Your task to perform on an android device: turn on the 24-hour format for clock Image 0: 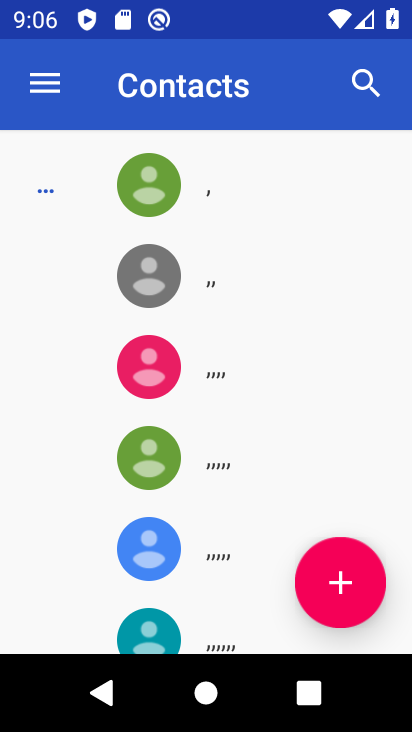
Step 0: press home button
Your task to perform on an android device: turn on the 24-hour format for clock Image 1: 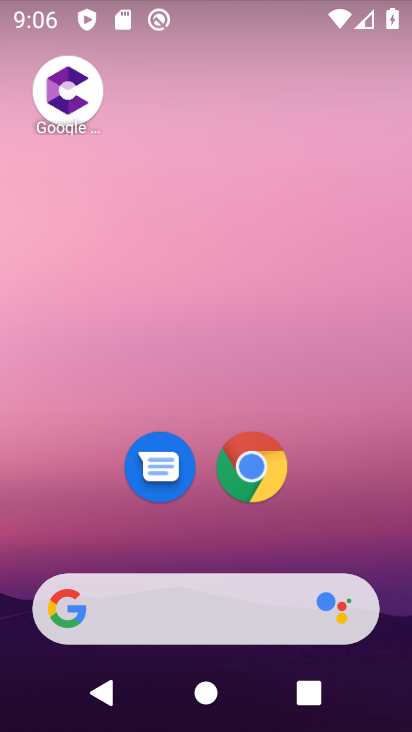
Step 1: drag from (369, 513) to (326, 14)
Your task to perform on an android device: turn on the 24-hour format for clock Image 2: 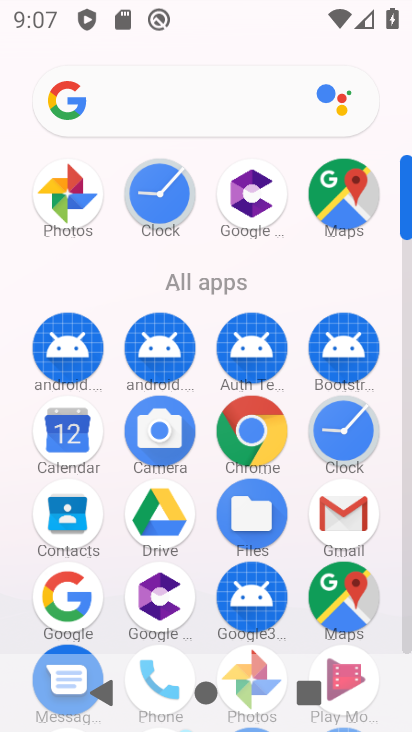
Step 2: click (152, 190)
Your task to perform on an android device: turn on the 24-hour format for clock Image 3: 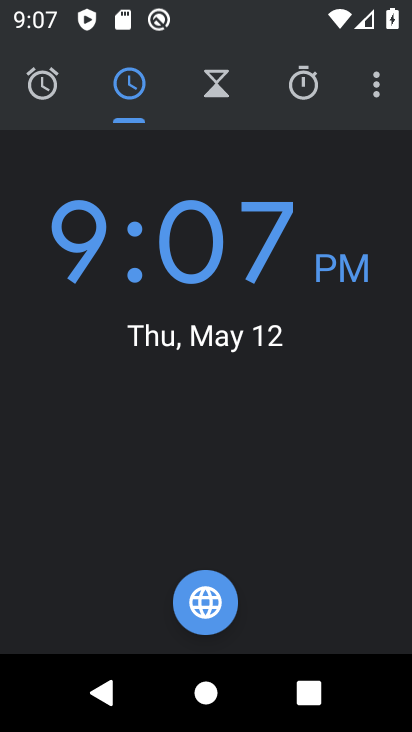
Step 3: click (390, 87)
Your task to perform on an android device: turn on the 24-hour format for clock Image 4: 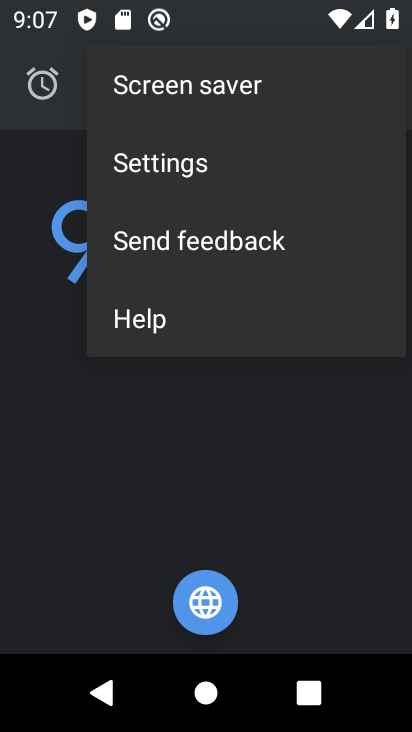
Step 4: click (164, 152)
Your task to perform on an android device: turn on the 24-hour format for clock Image 5: 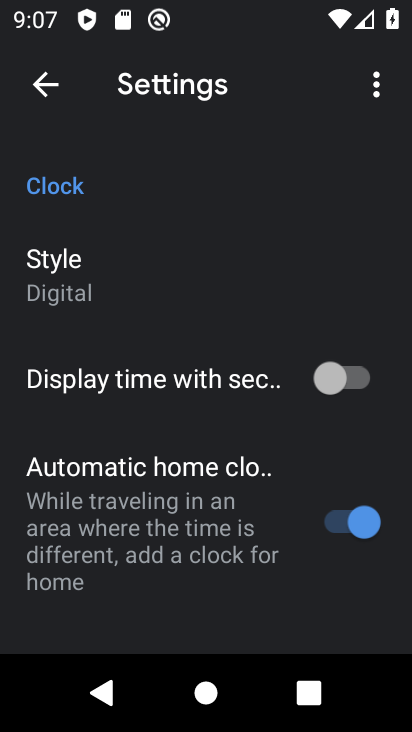
Step 5: drag from (210, 568) to (200, 14)
Your task to perform on an android device: turn on the 24-hour format for clock Image 6: 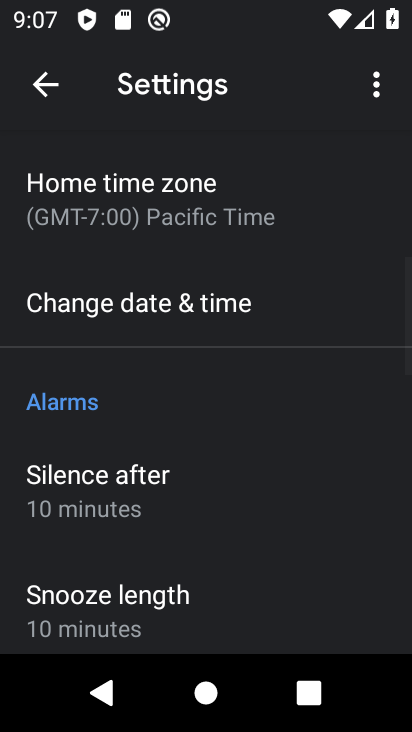
Step 6: click (135, 284)
Your task to perform on an android device: turn on the 24-hour format for clock Image 7: 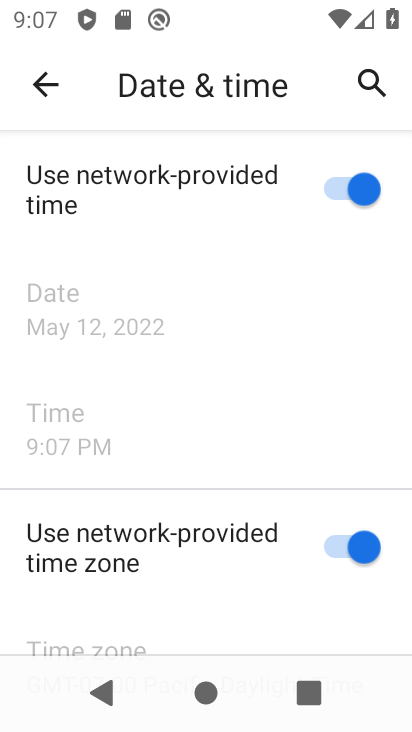
Step 7: drag from (224, 649) to (165, 103)
Your task to perform on an android device: turn on the 24-hour format for clock Image 8: 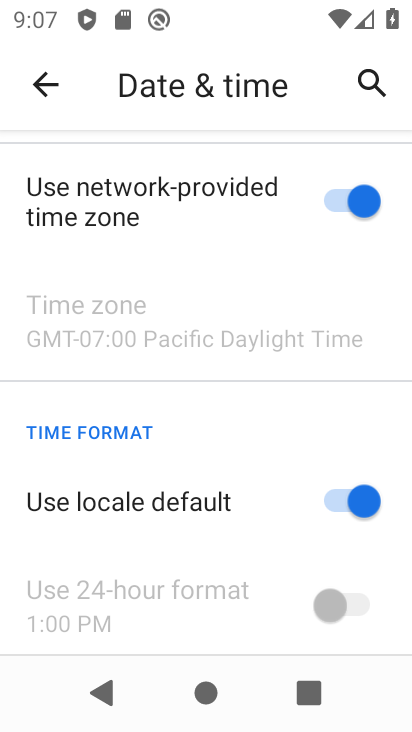
Step 8: drag from (204, 544) to (179, 267)
Your task to perform on an android device: turn on the 24-hour format for clock Image 9: 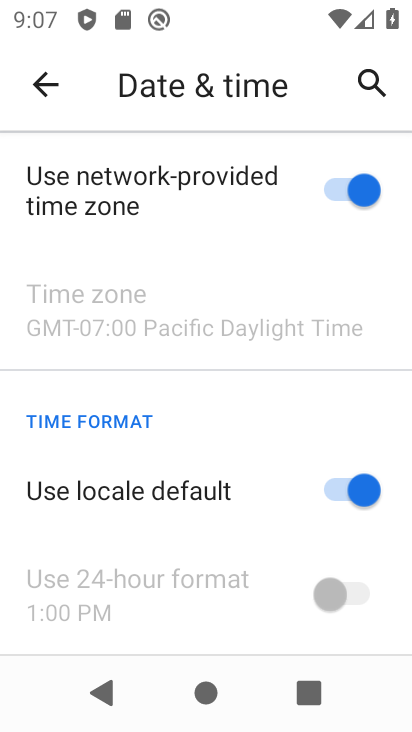
Step 9: click (353, 473)
Your task to perform on an android device: turn on the 24-hour format for clock Image 10: 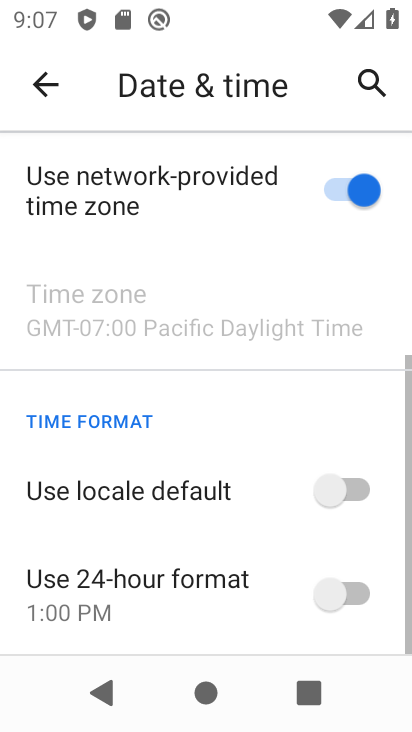
Step 10: click (350, 606)
Your task to perform on an android device: turn on the 24-hour format for clock Image 11: 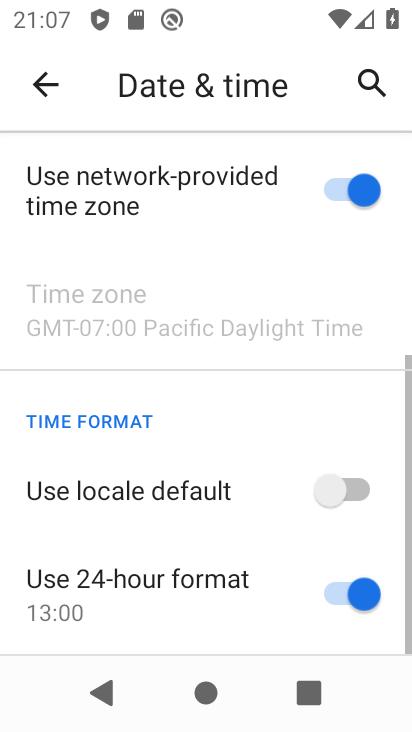
Step 11: task complete